Your task to perform on an android device: Go to network settings Image 0: 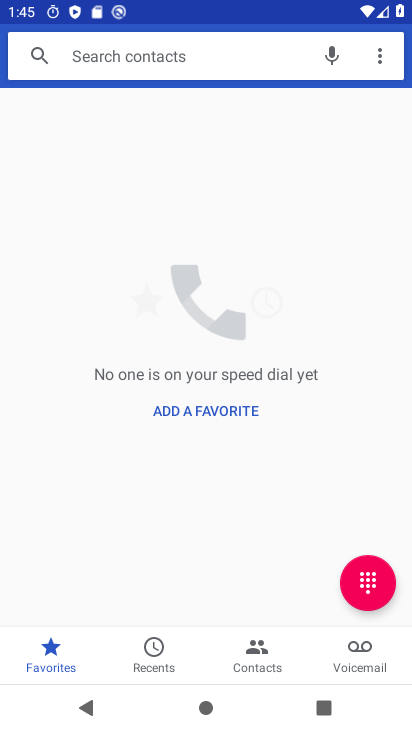
Step 0: press home button
Your task to perform on an android device: Go to network settings Image 1: 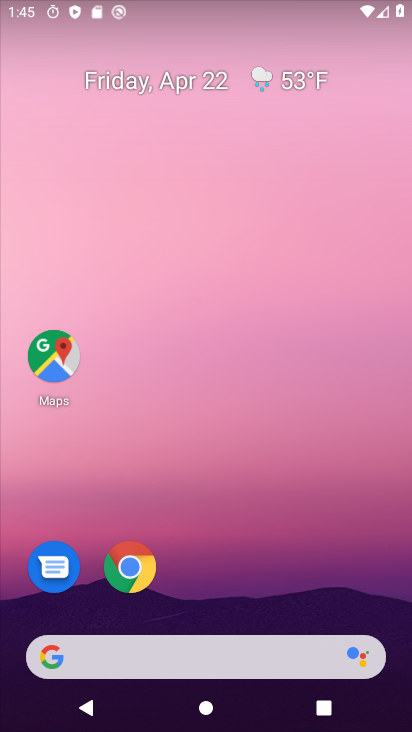
Step 1: drag from (302, 561) to (276, 139)
Your task to perform on an android device: Go to network settings Image 2: 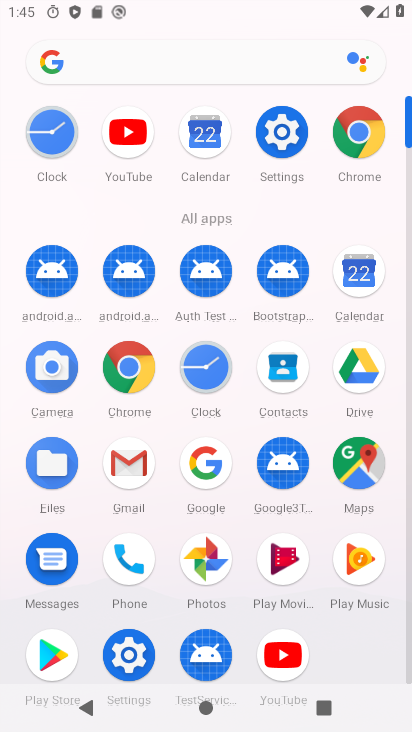
Step 2: click (282, 122)
Your task to perform on an android device: Go to network settings Image 3: 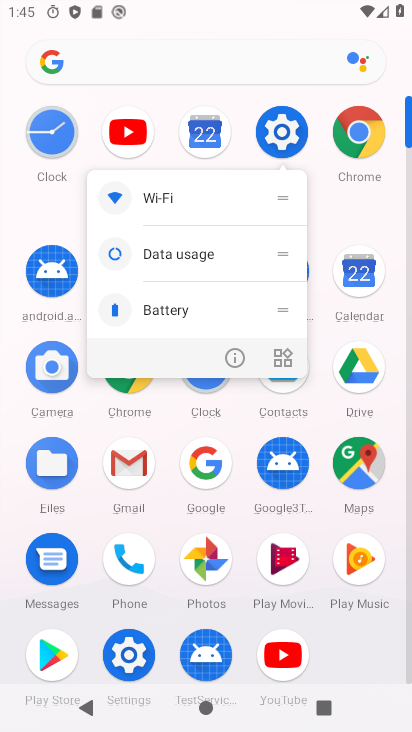
Step 3: click (282, 121)
Your task to perform on an android device: Go to network settings Image 4: 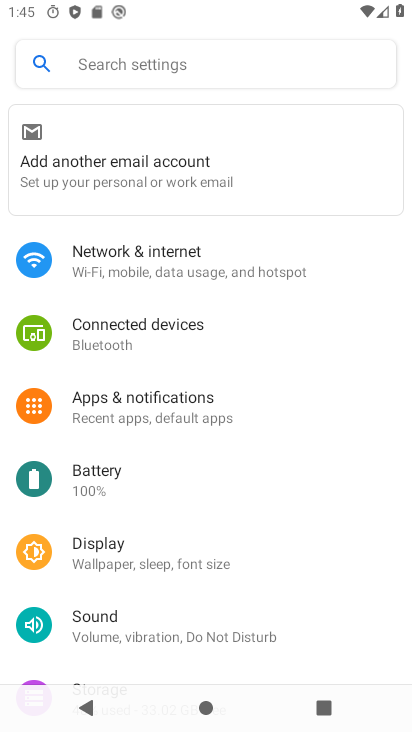
Step 4: click (224, 268)
Your task to perform on an android device: Go to network settings Image 5: 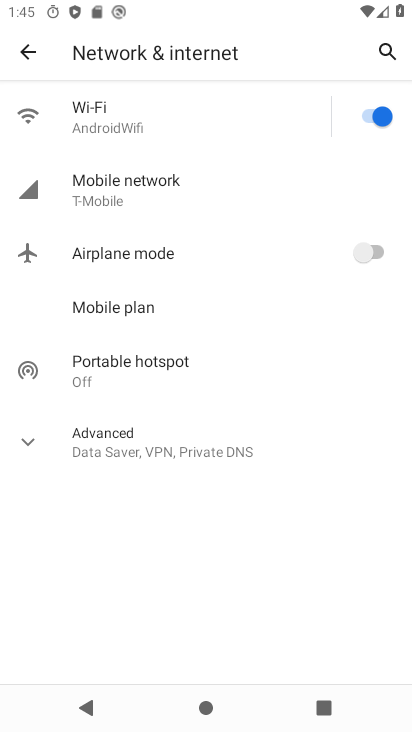
Step 5: task complete